Your task to perform on an android device: Turn off the flashlight Image 0: 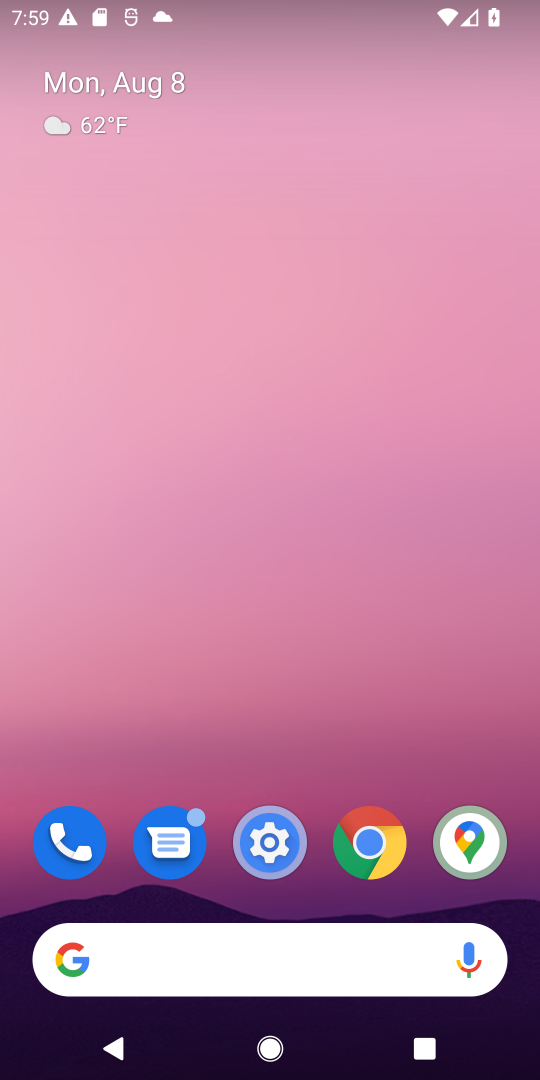
Step 0: drag from (282, 711) to (331, 1)
Your task to perform on an android device: Turn off the flashlight Image 1: 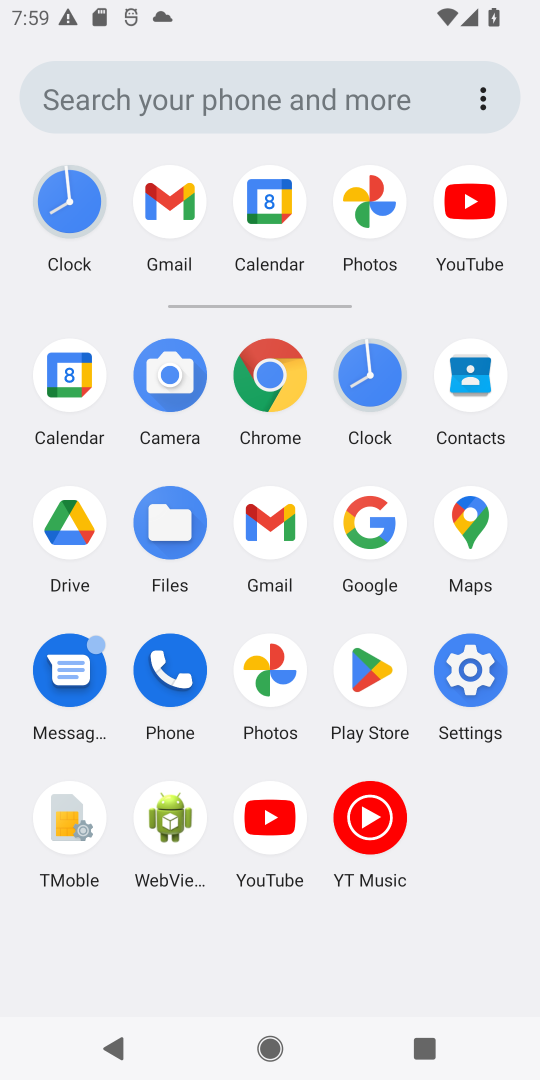
Step 1: click (469, 673)
Your task to perform on an android device: Turn off the flashlight Image 2: 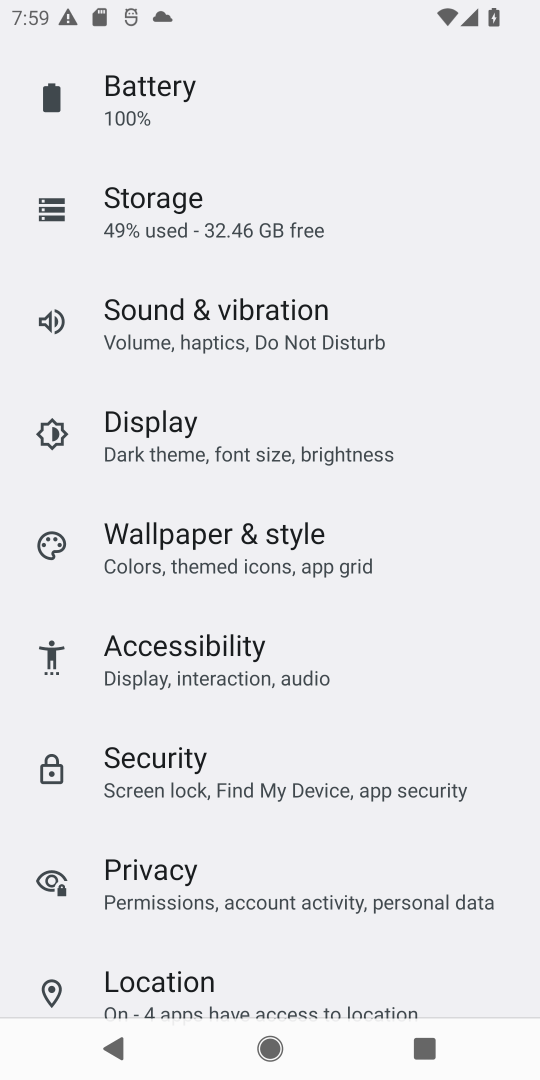
Step 2: drag from (304, 185) to (337, 1075)
Your task to perform on an android device: Turn off the flashlight Image 3: 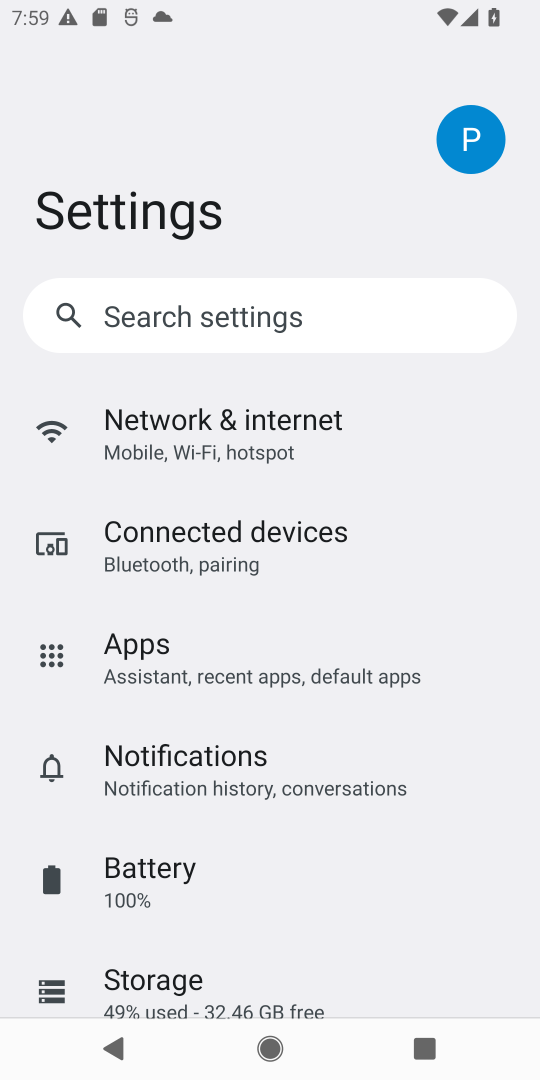
Step 3: click (344, 330)
Your task to perform on an android device: Turn off the flashlight Image 4: 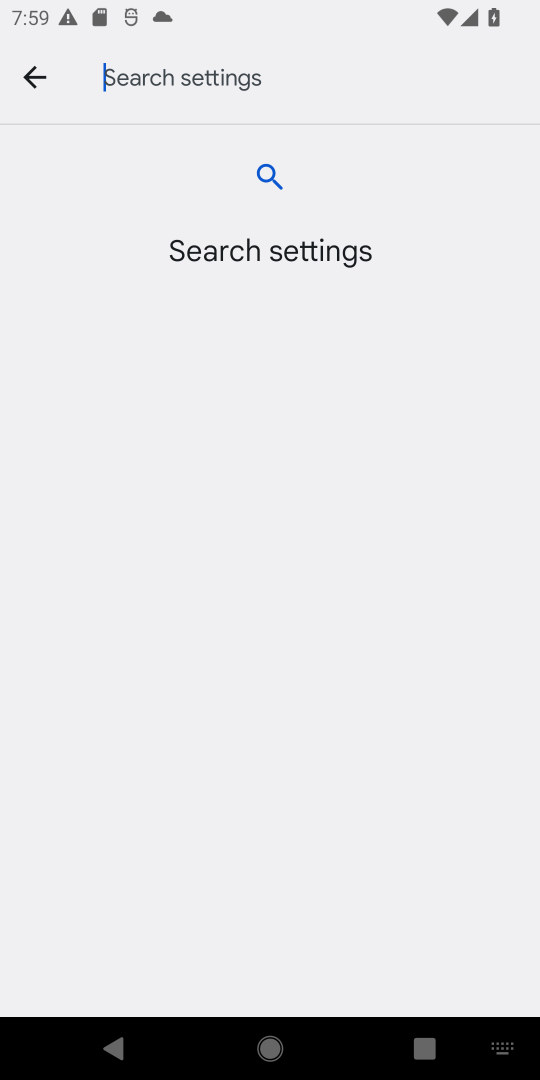
Step 4: type "Flashlight"
Your task to perform on an android device: Turn off the flashlight Image 5: 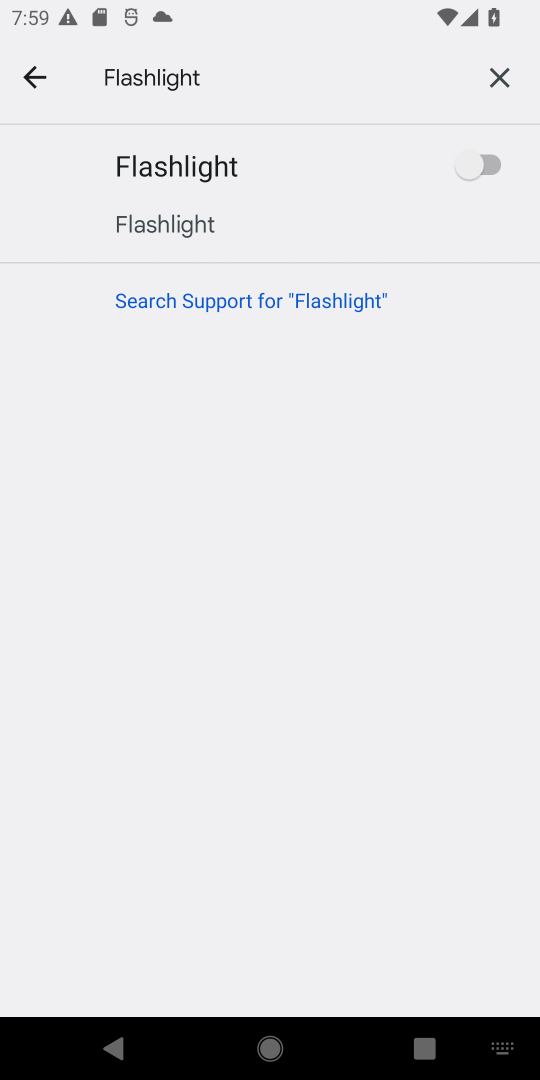
Step 5: task complete